Your task to perform on an android device: Find coffee shops on Maps Image 0: 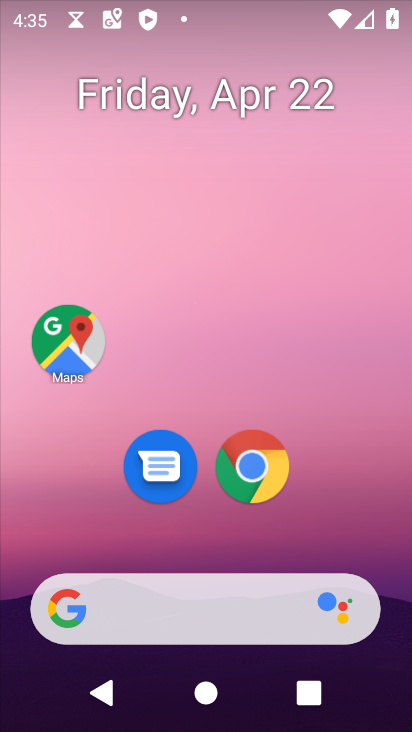
Step 0: drag from (402, 533) to (336, 263)
Your task to perform on an android device: Find coffee shops on Maps Image 1: 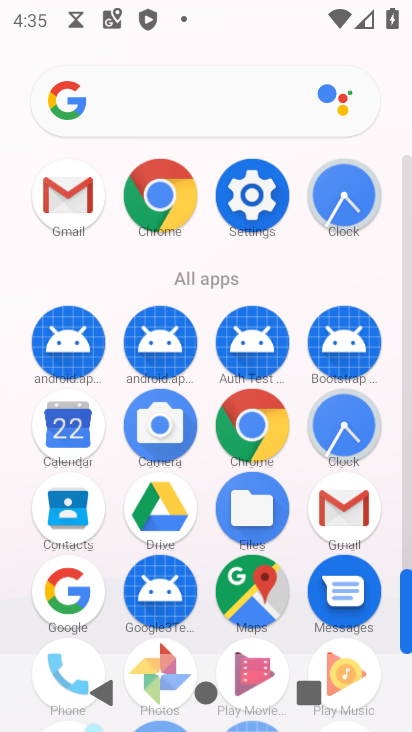
Step 1: click (245, 595)
Your task to perform on an android device: Find coffee shops on Maps Image 2: 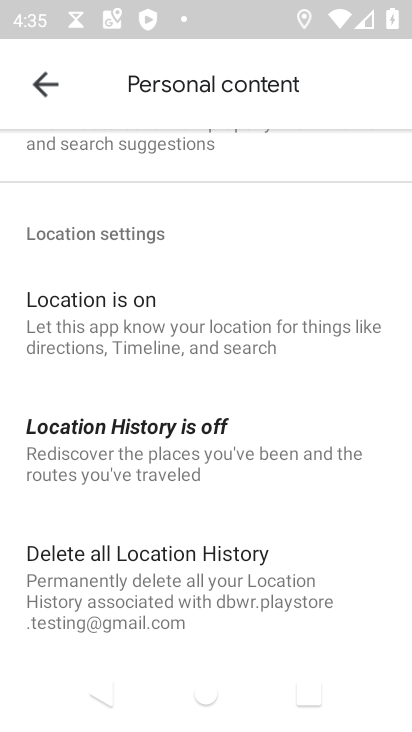
Step 2: click (46, 87)
Your task to perform on an android device: Find coffee shops on Maps Image 3: 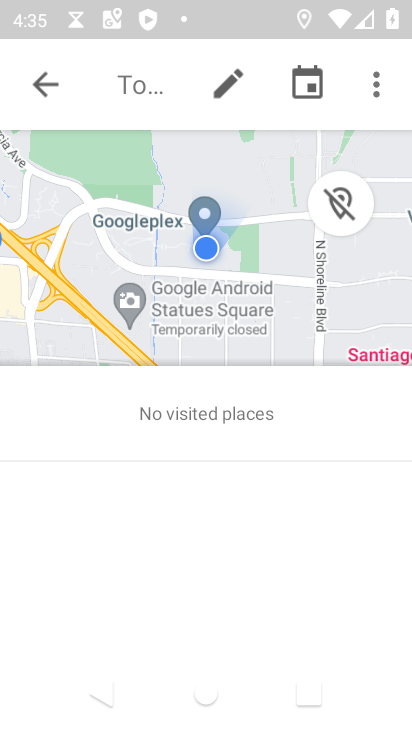
Step 3: click (46, 87)
Your task to perform on an android device: Find coffee shops on Maps Image 4: 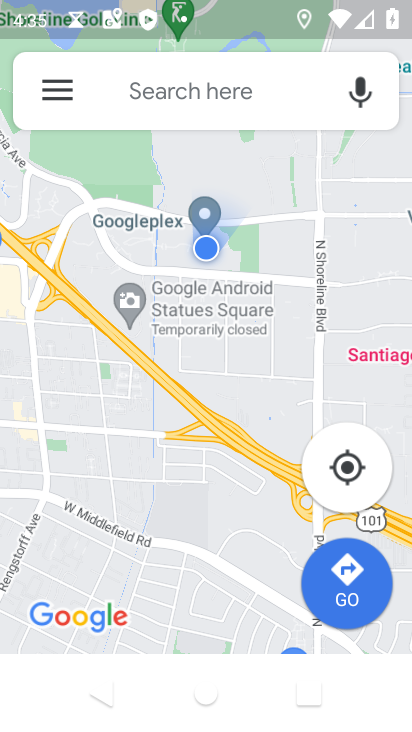
Step 4: click (172, 95)
Your task to perform on an android device: Find coffee shops on Maps Image 5: 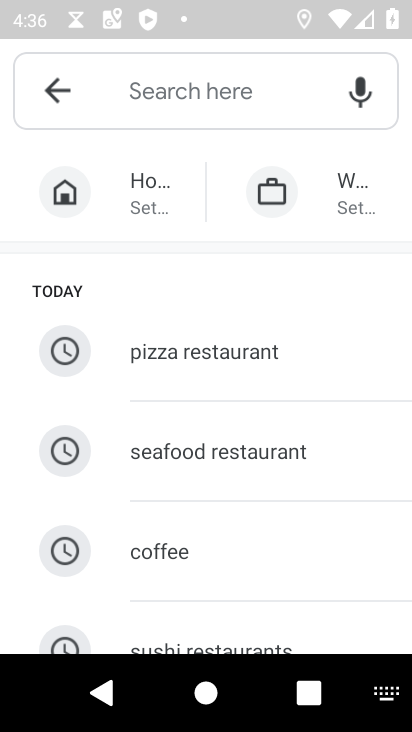
Step 5: type "coffee shops"
Your task to perform on an android device: Find coffee shops on Maps Image 6: 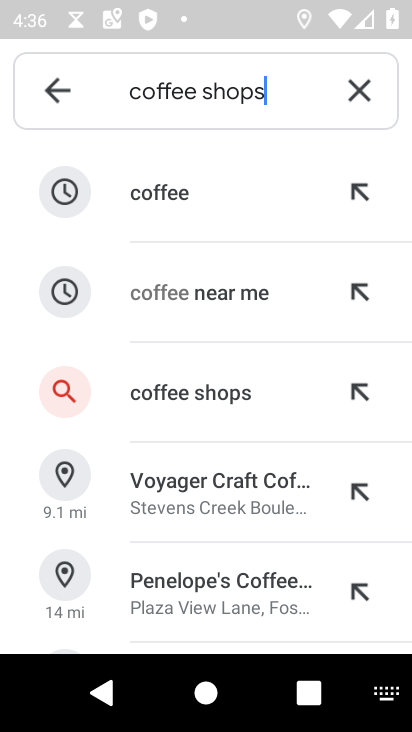
Step 6: click (211, 387)
Your task to perform on an android device: Find coffee shops on Maps Image 7: 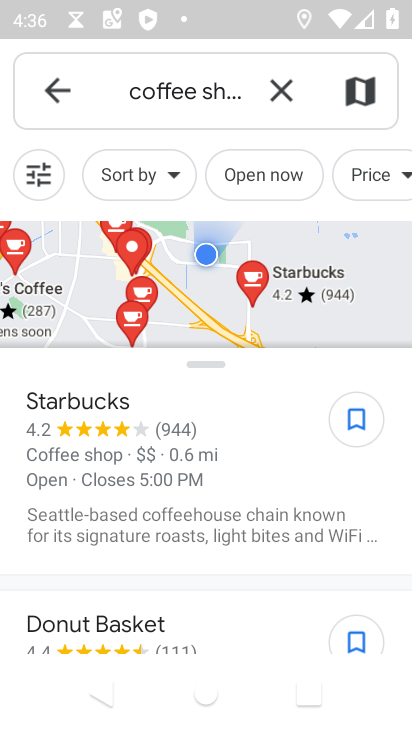
Step 7: task complete